Your task to perform on an android device: turn on notifications settings in the gmail app Image 0: 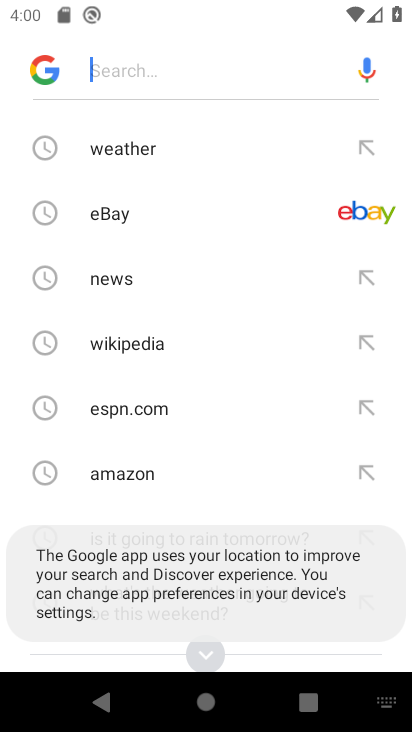
Step 0: press back button
Your task to perform on an android device: turn on notifications settings in the gmail app Image 1: 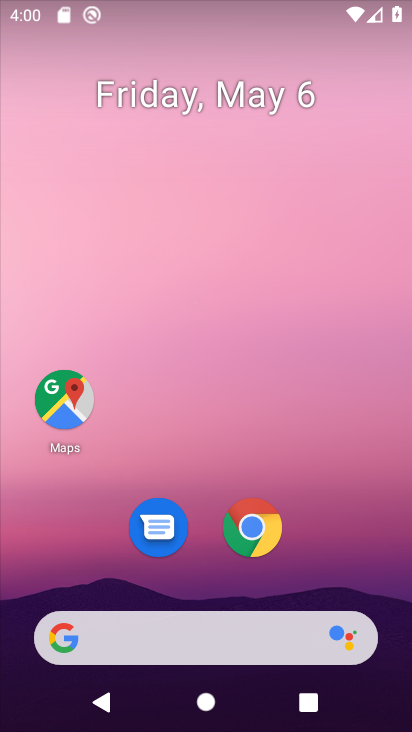
Step 1: drag from (168, 596) to (269, 101)
Your task to perform on an android device: turn on notifications settings in the gmail app Image 2: 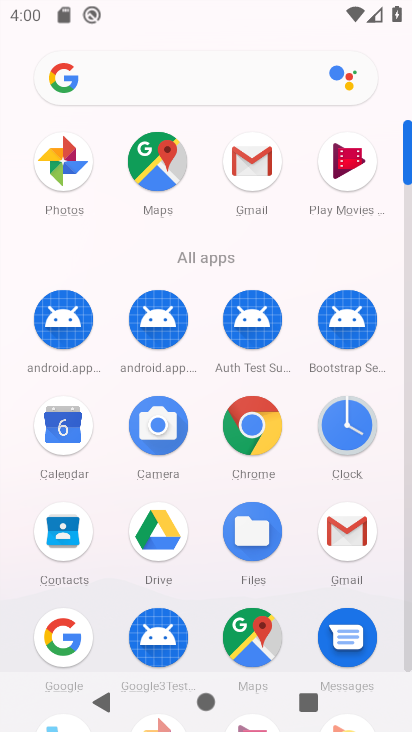
Step 2: drag from (172, 616) to (205, 495)
Your task to perform on an android device: turn on notifications settings in the gmail app Image 3: 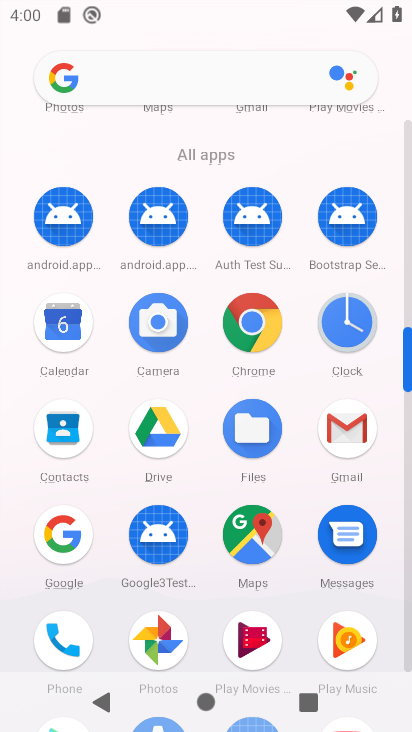
Step 3: click (351, 427)
Your task to perform on an android device: turn on notifications settings in the gmail app Image 4: 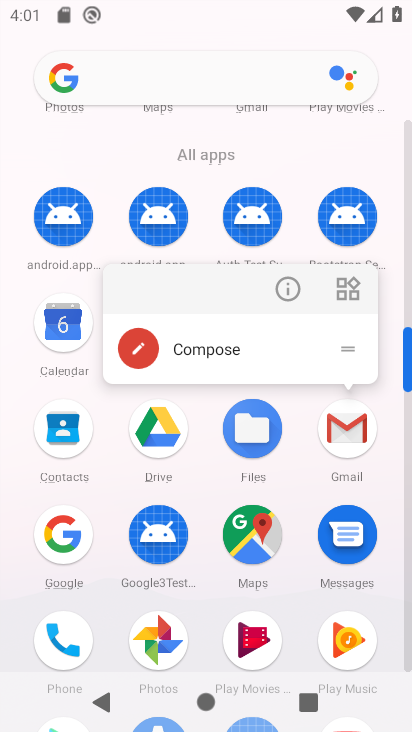
Step 4: click (340, 426)
Your task to perform on an android device: turn on notifications settings in the gmail app Image 5: 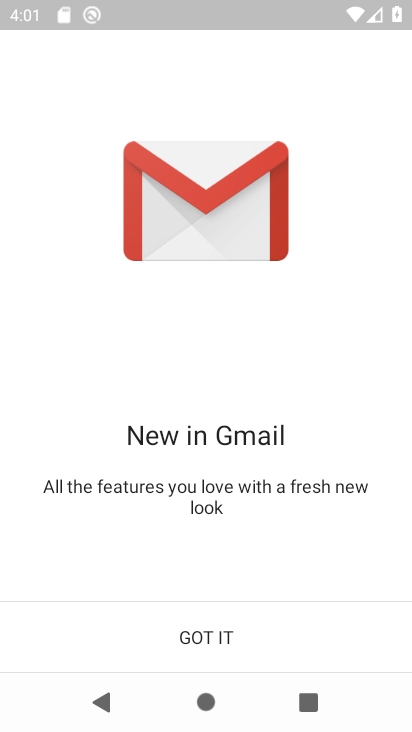
Step 5: click (213, 624)
Your task to perform on an android device: turn on notifications settings in the gmail app Image 6: 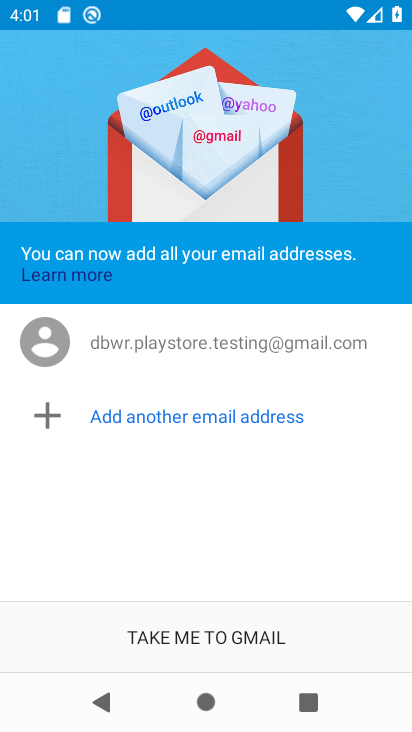
Step 6: click (220, 641)
Your task to perform on an android device: turn on notifications settings in the gmail app Image 7: 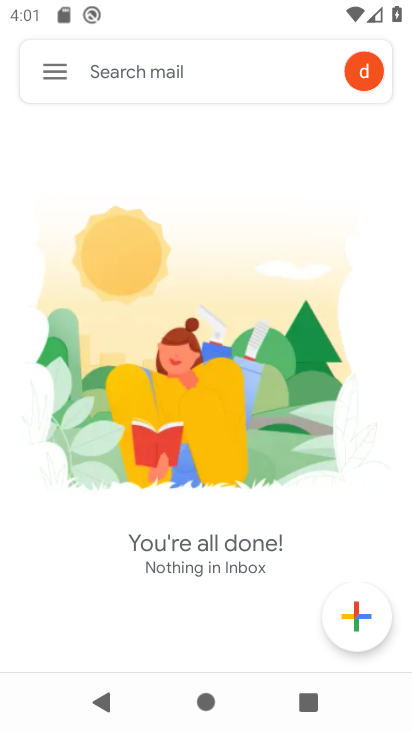
Step 7: click (52, 69)
Your task to perform on an android device: turn on notifications settings in the gmail app Image 8: 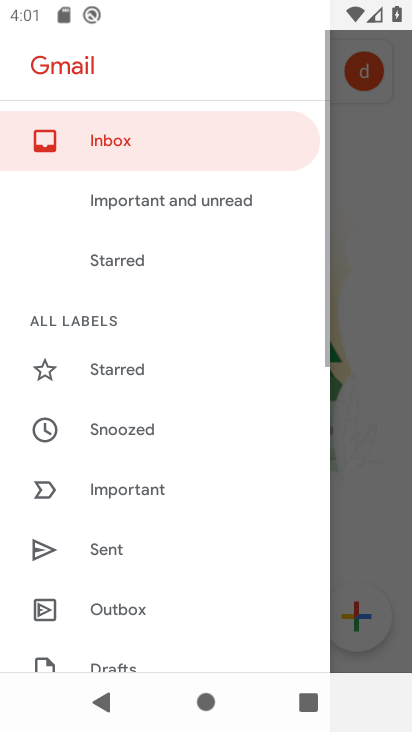
Step 8: drag from (186, 586) to (256, 201)
Your task to perform on an android device: turn on notifications settings in the gmail app Image 9: 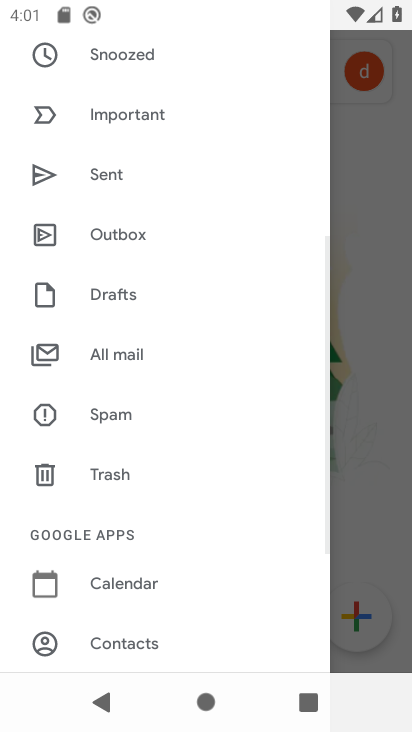
Step 9: drag from (161, 585) to (218, 317)
Your task to perform on an android device: turn on notifications settings in the gmail app Image 10: 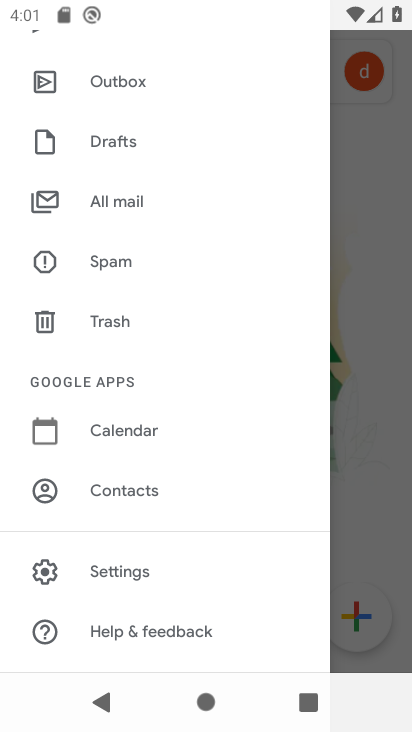
Step 10: click (156, 578)
Your task to perform on an android device: turn on notifications settings in the gmail app Image 11: 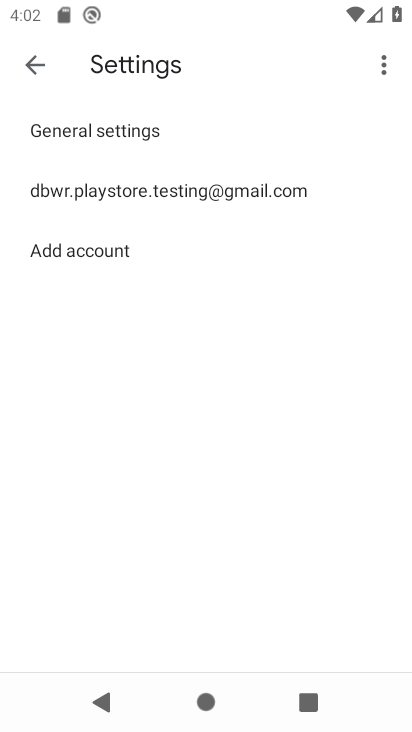
Step 11: click (262, 215)
Your task to perform on an android device: turn on notifications settings in the gmail app Image 12: 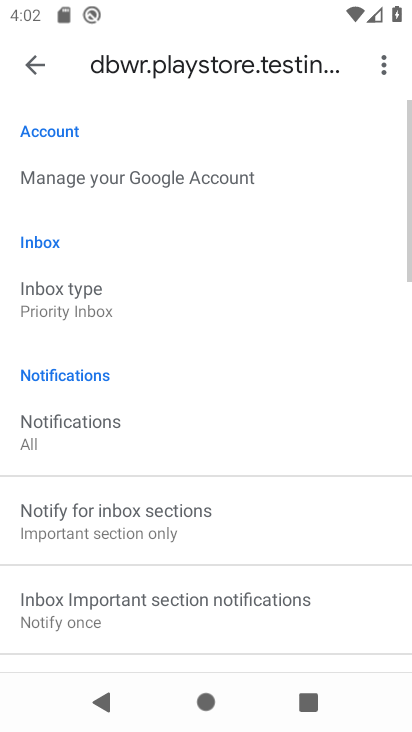
Step 12: drag from (147, 622) to (219, 282)
Your task to perform on an android device: turn on notifications settings in the gmail app Image 13: 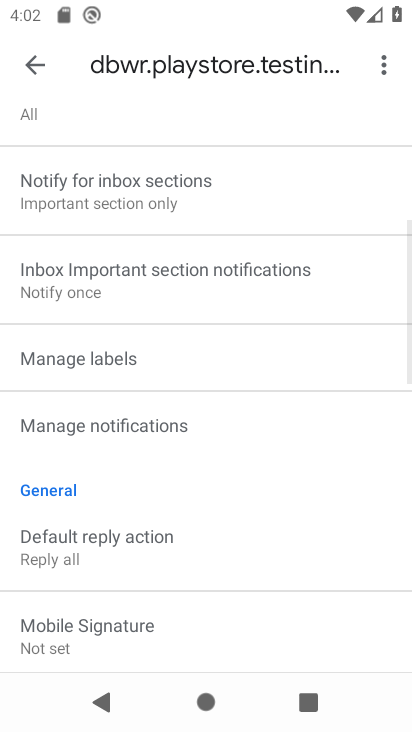
Step 13: click (173, 425)
Your task to perform on an android device: turn on notifications settings in the gmail app Image 14: 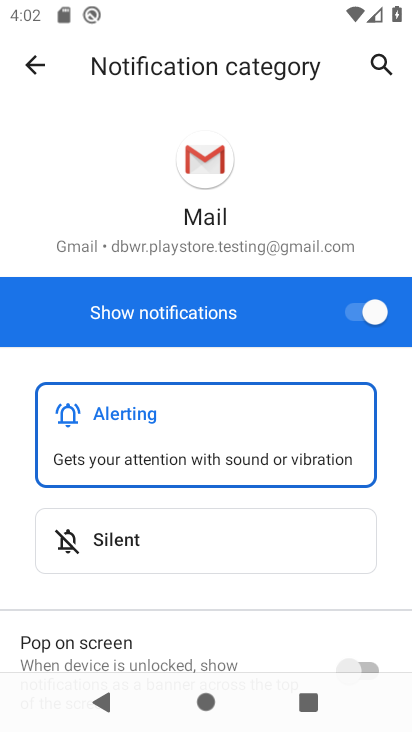
Step 14: task complete